Your task to perform on an android device: Go to network settings Image 0: 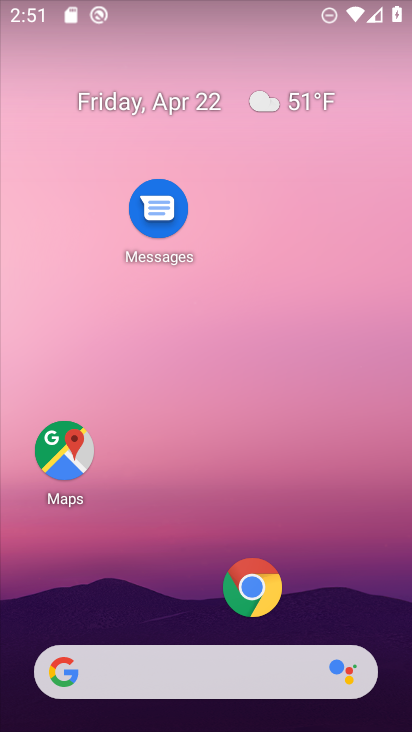
Step 0: drag from (188, 550) to (230, 253)
Your task to perform on an android device: Go to network settings Image 1: 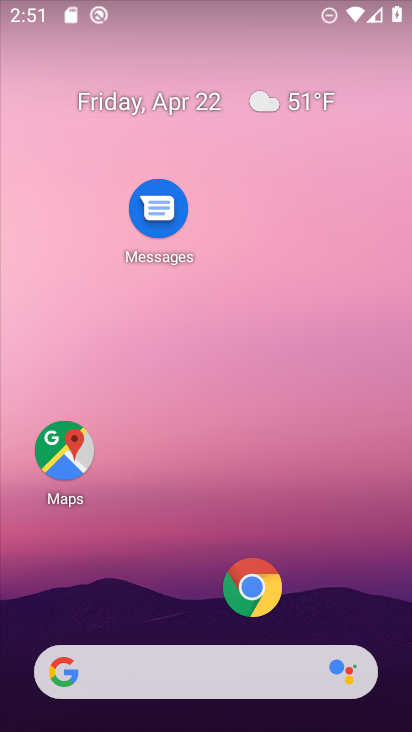
Step 1: click (236, 188)
Your task to perform on an android device: Go to network settings Image 2: 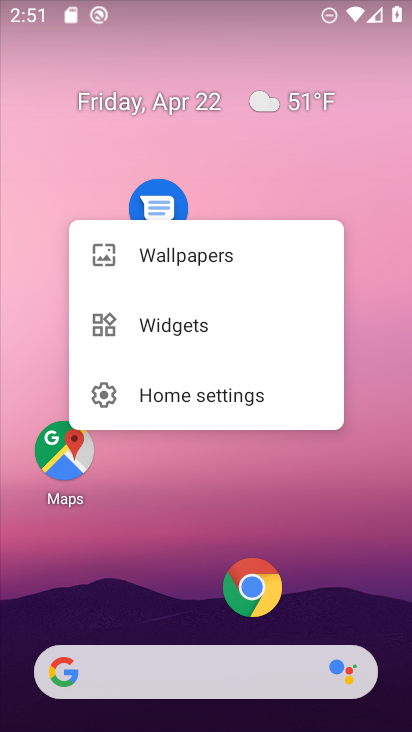
Step 2: click (185, 608)
Your task to perform on an android device: Go to network settings Image 3: 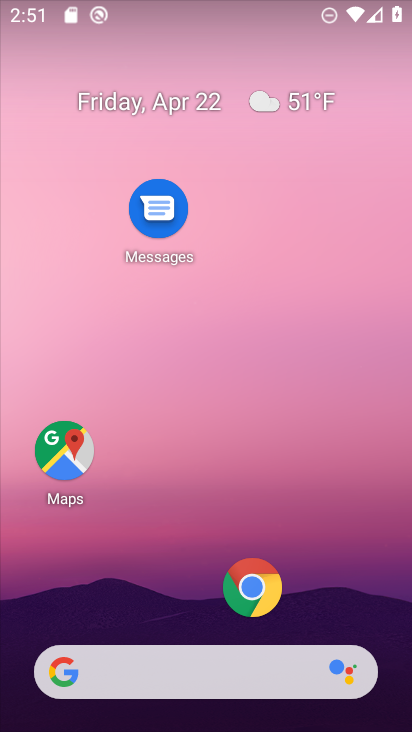
Step 3: drag from (198, 606) to (208, 181)
Your task to perform on an android device: Go to network settings Image 4: 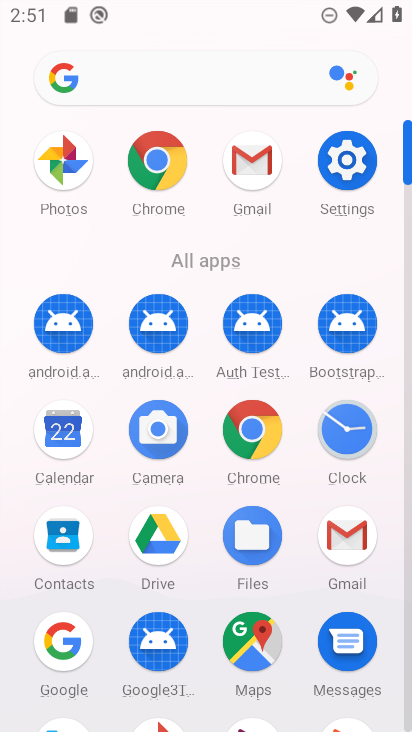
Step 4: click (360, 156)
Your task to perform on an android device: Go to network settings Image 5: 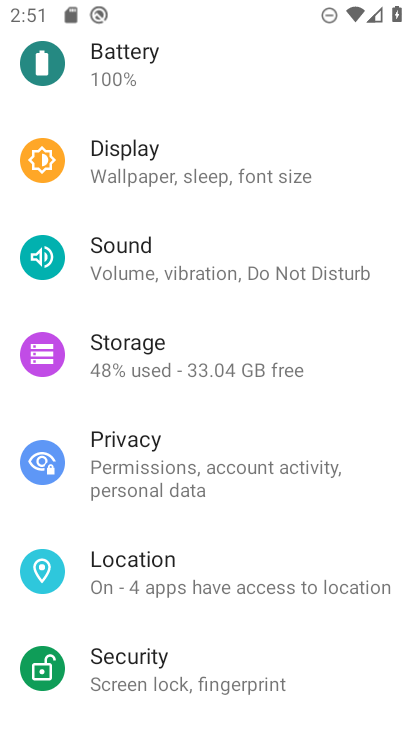
Step 5: drag from (240, 215) to (238, 557)
Your task to perform on an android device: Go to network settings Image 6: 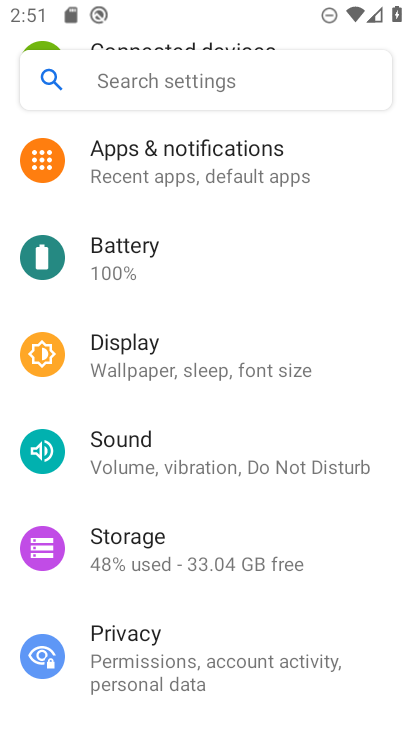
Step 6: drag from (240, 296) to (234, 590)
Your task to perform on an android device: Go to network settings Image 7: 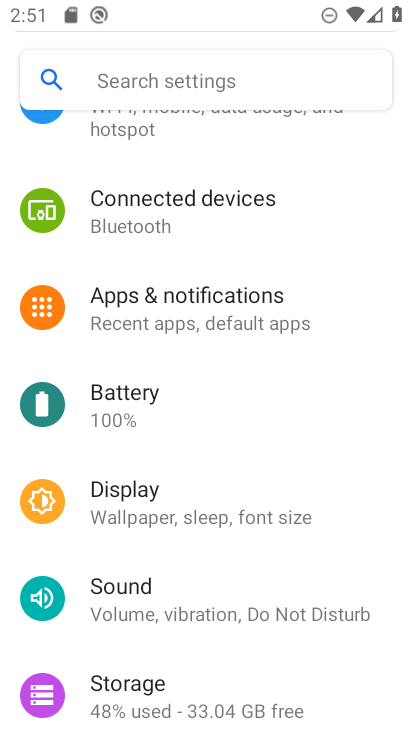
Step 7: drag from (256, 250) to (258, 583)
Your task to perform on an android device: Go to network settings Image 8: 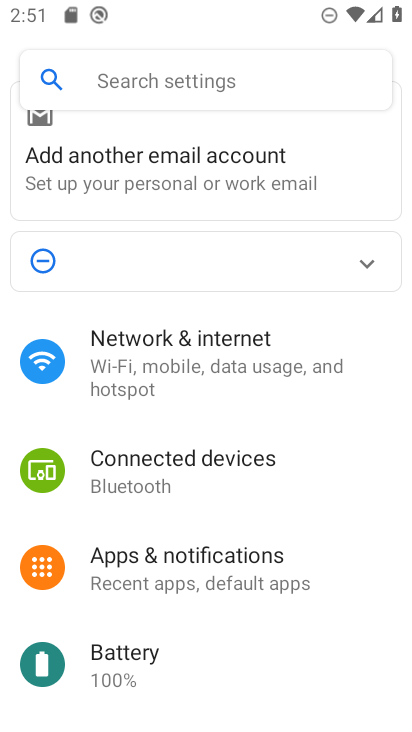
Step 8: click (194, 376)
Your task to perform on an android device: Go to network settings Image 9: 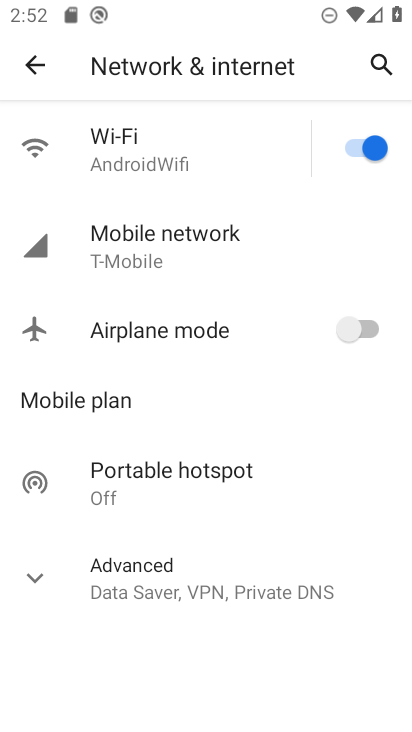
Step 9: task complete